Your task to perform on an android device: change the clock style Image 0: 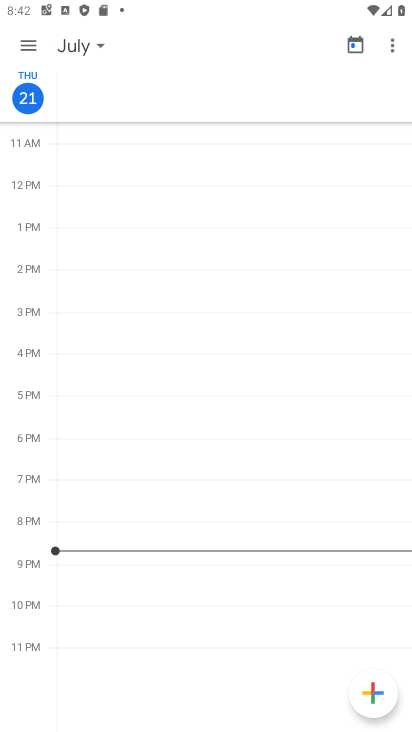
Step 0: press home button
Your task to perform on an android device: change the clock style Image 1: 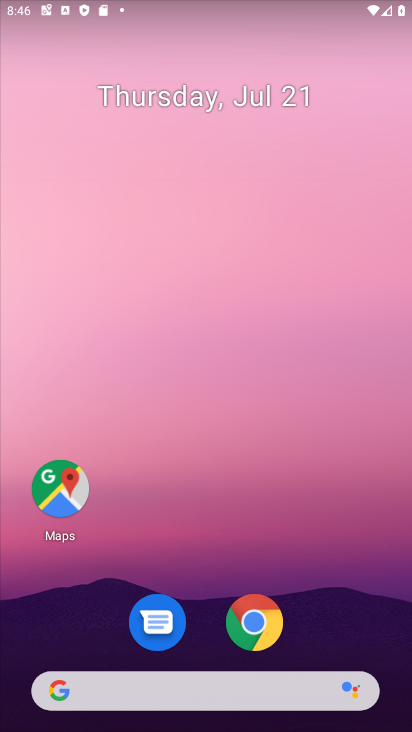
Step 1: drag from (313, 569) to (241, 9)
Your task to perform on an android device: change the clock style Image 2: 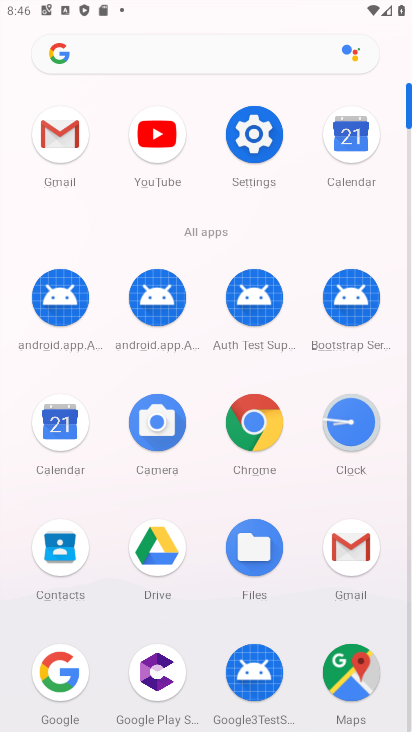
Step 2: click (340, 422)
Your task to perform on an android device: change the clock style Image 3: 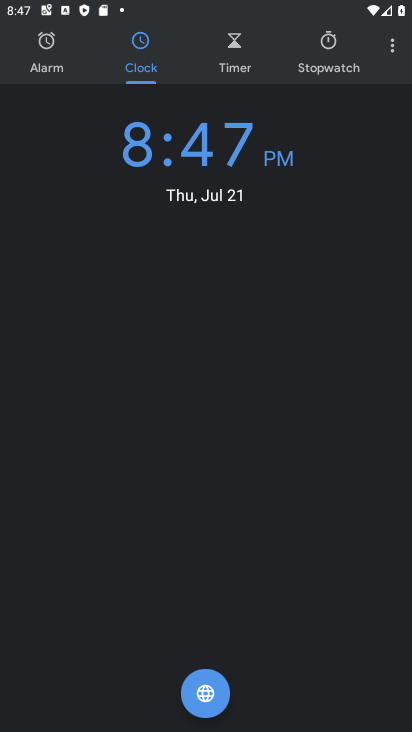
Step 3: click (391, 43)
Your task to perform on an android device: change the clock style Image 4: 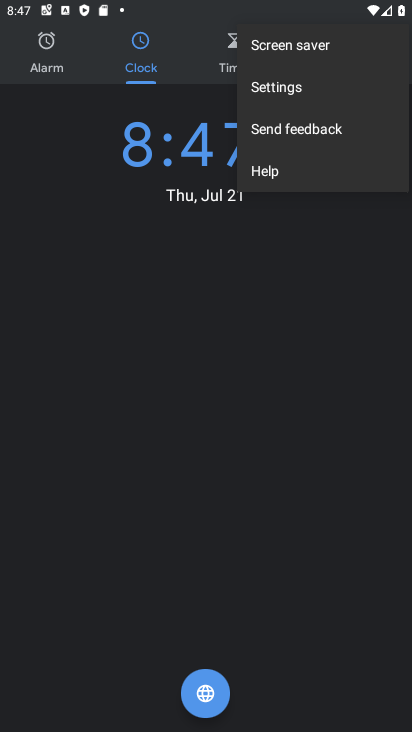
Step 4: click (298, 89)
Your task to perform on an android device: change the clock style Image 5: 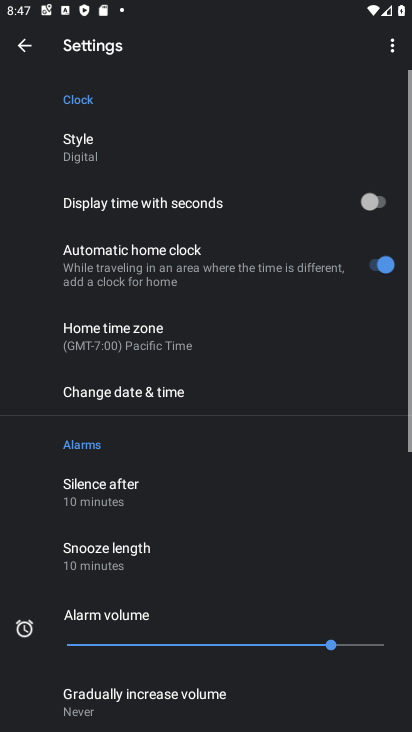
Step 5: click (93, 141)
Your task to perform on an android device: change the clock style Image 6: 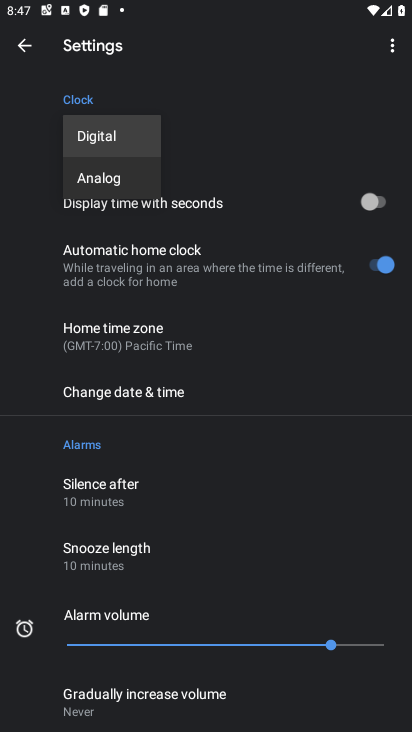
Step 6: click (131, 188)
Your task to perform on an android device: change the clock style Image 7: 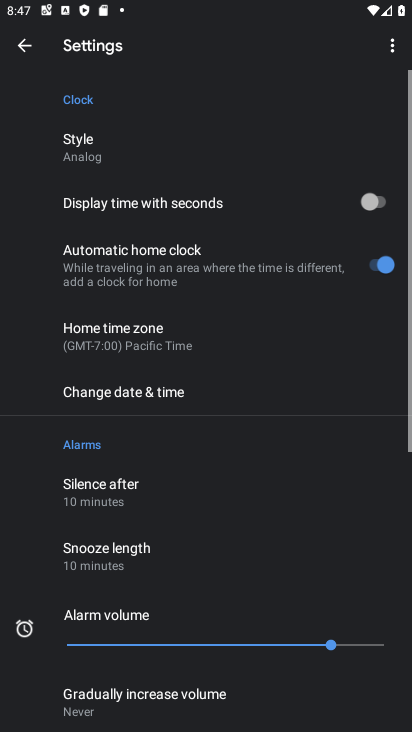
Step 7: task complete